Your task to perform on an android device: clear history in the chrome app Image 0: 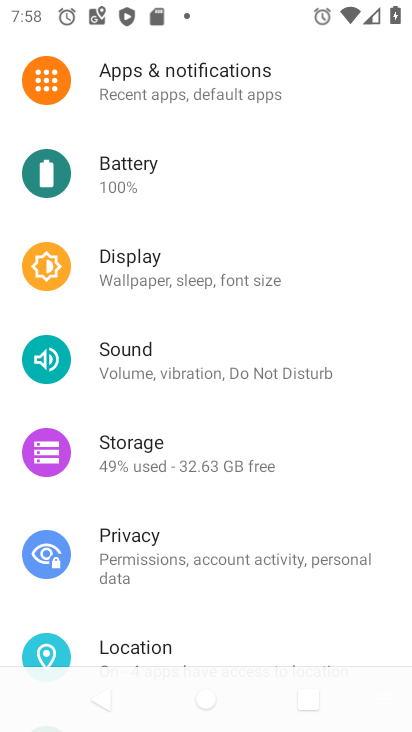
Step 0: press home button
Your task to perform on an android device: clear history in the chrome app Image 1: 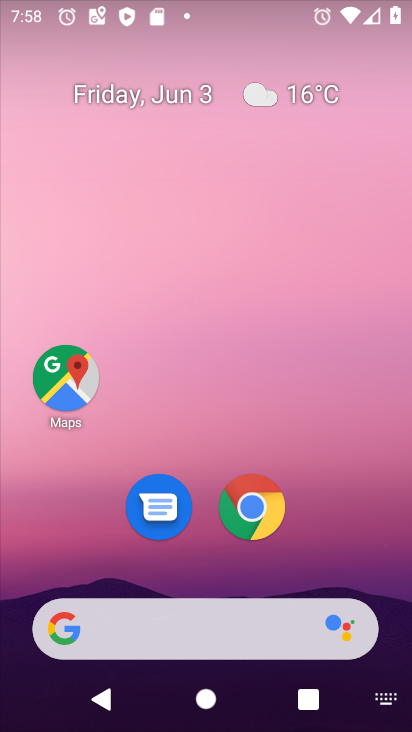
Step 1: click (259, 512)
Your task to perform on an android device: clear history in the chrome app Image 2: 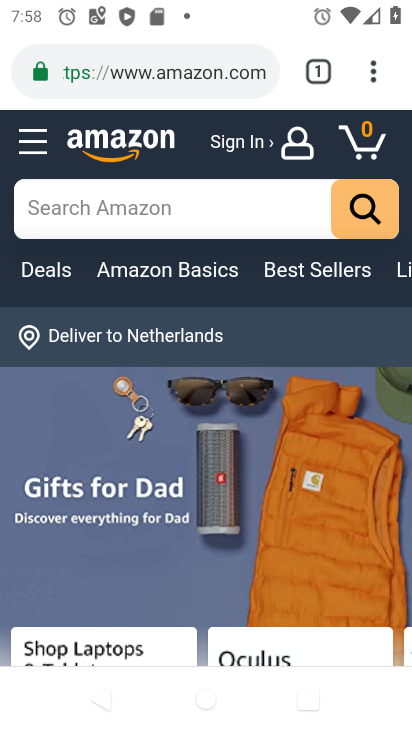
Step 2: click (376, 79)
Your task to perform on an android device: clear history in the chrome app Image 3: 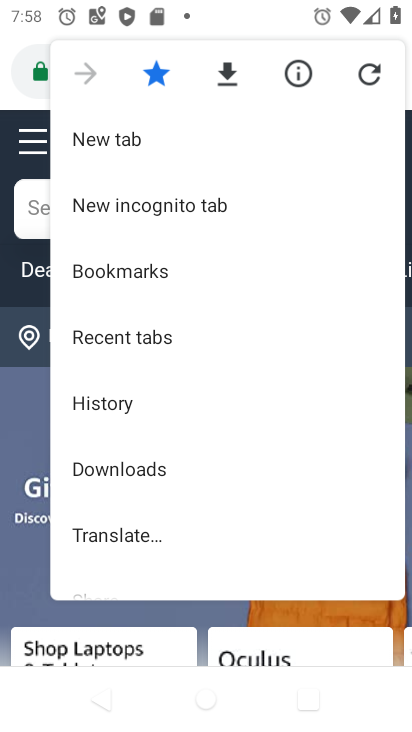
Step 3: click (124, 384)
Your task to perform on an android device: clear history in the chrome app Image 4: 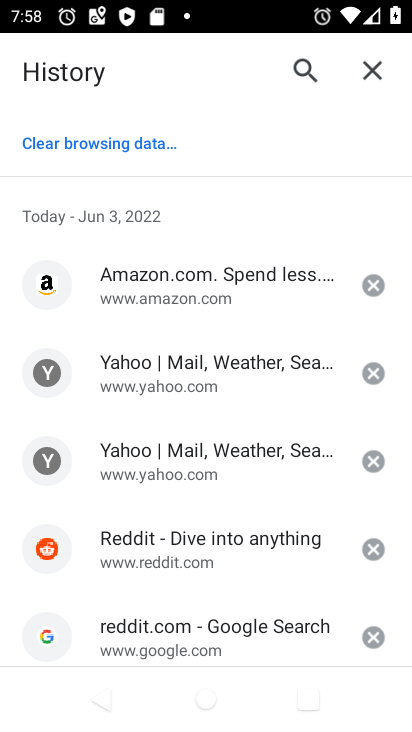
Step 4: click (140, 139)
Your task to perform on an android device: clear history in the chrome app Image 5: 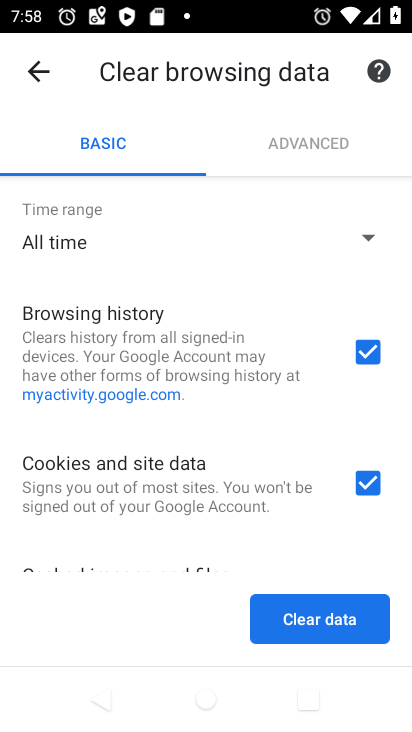
Step 5: click (312, 613)
Your task to perform on an android device: clear history in the chrome app Image 6: 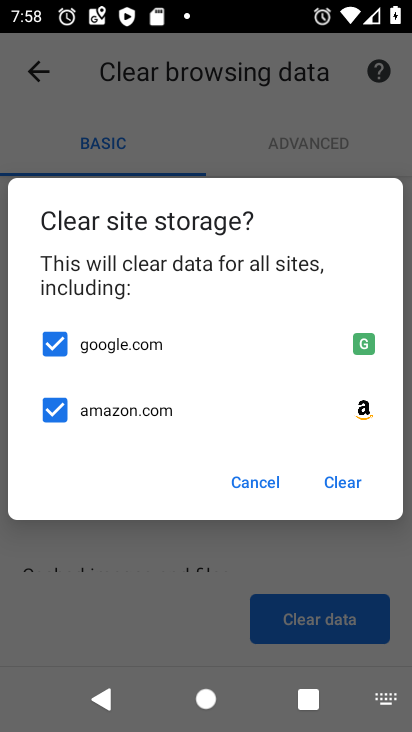
Step 6: click (331, 471)
Your task to perform on an android device: clear history in the chrome app Image 7: 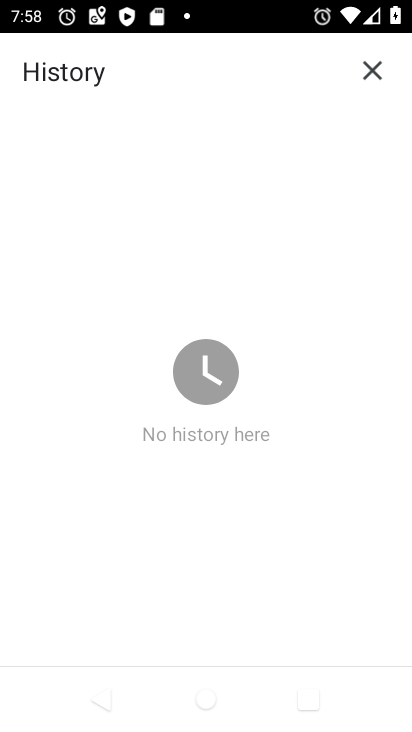
Step 7: task complete